Your task to perform on an android device: turn off picture-in-picture Image 0: 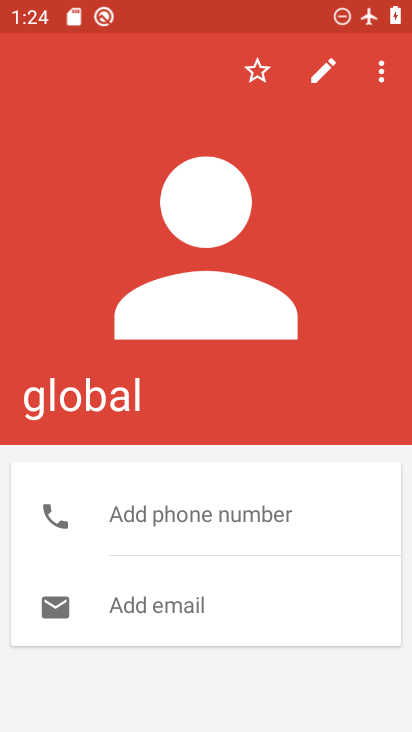
Step 0: press home button
Your task to perform on an android device: turn off picture-in-picture Image 1: 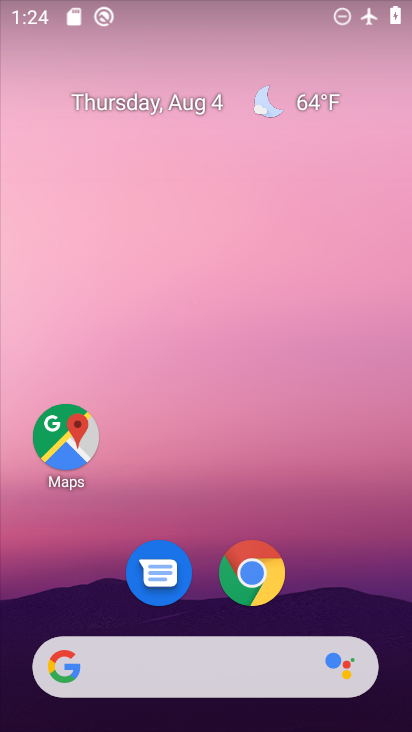
Step 1: click (269, 574)
Your task to perform on an android device: turn off picture-in-picture Image 2: 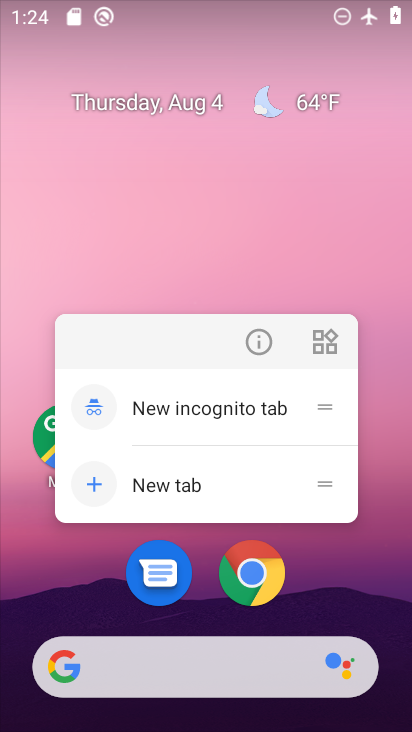
Step 2: click (270, 333)
Your task to perform on an android device: turn off picture-in-picture Image 3: 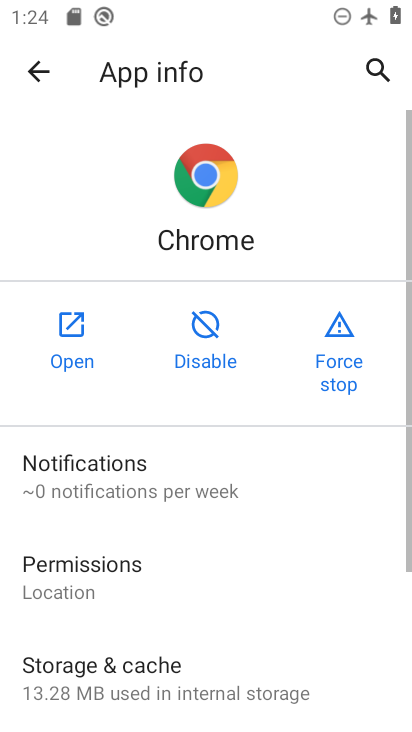
Step 3: drag from (291, 598) to (307, 142)
Your task to perform on an android device: turn off picture-in-picture Image 4: 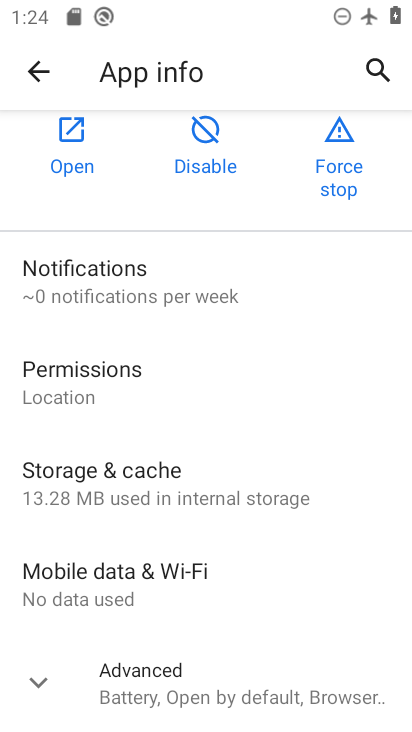
Step 4: click (172, 663)
Your task to perform on an android device: turn off picture-in-picture Image 5: 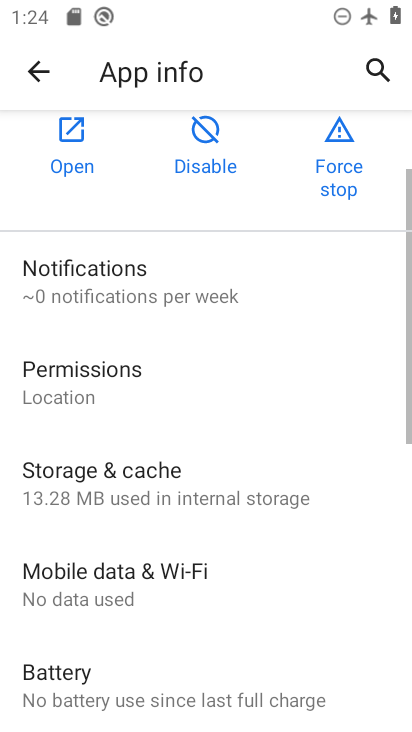
Step 5: drag from (355, 657) to (365, 215)
Your task to perform on an android device: turn off picture-in-picture Image 6: 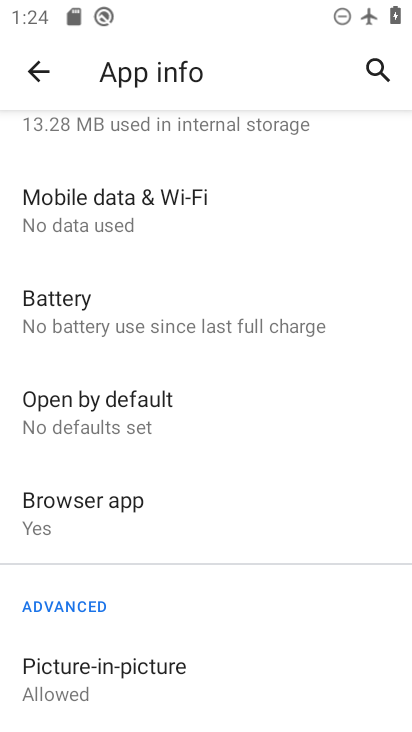
Step 6: drag from (306, 609) to (336, 316)
Your task to perform on an android device: turn off picture-in-picture Image 7: 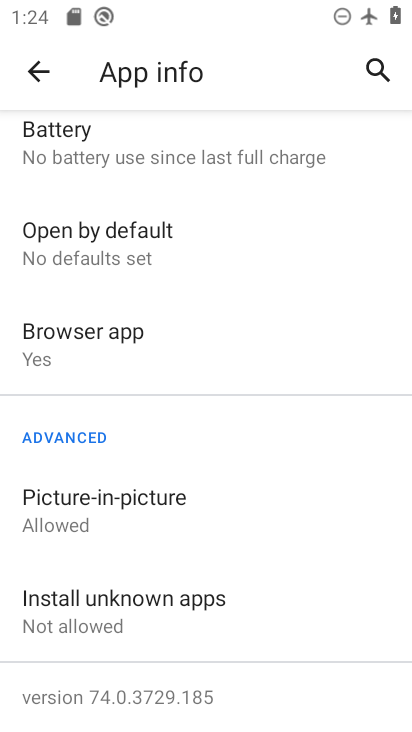
Step 7: click (77, 507)
Your task to perform on an android device: turn off picture-in-picture Image 8: 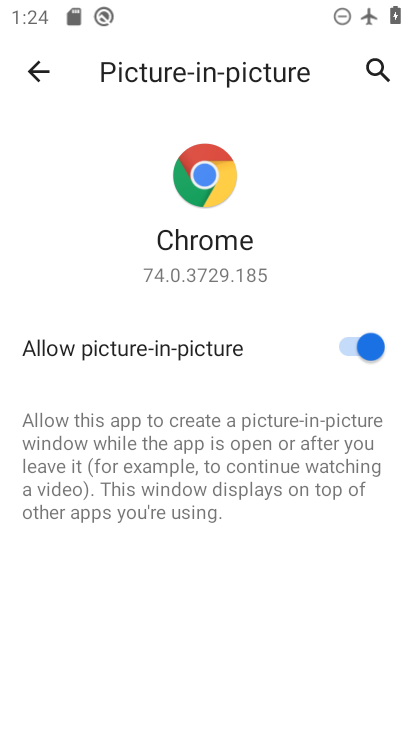
Step 8: click (363, 357)
Your task to perform on an android device: turn off picture-in-picture Image 9: 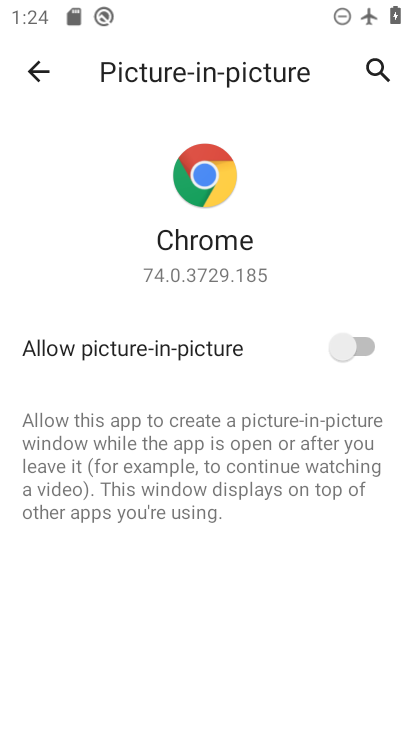
Step 9: task complete